Your task to perform on an android device: Open Google Maps Image 0: 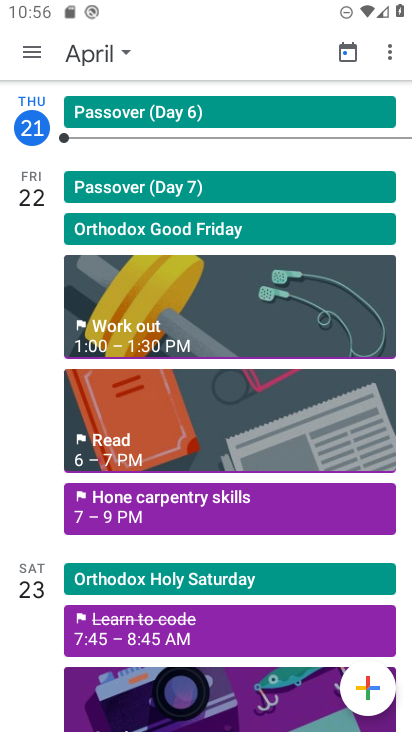
Step 0: press home button
Your task to perform on an android device: Open Google Maps Image 1: 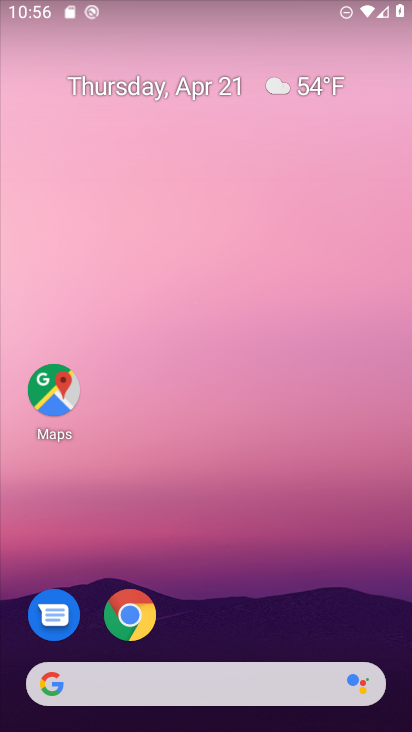
Step 1: drag from (298, 611) to (322, 294)
Your task to perform on an android device: Open Google Maps Image 2: 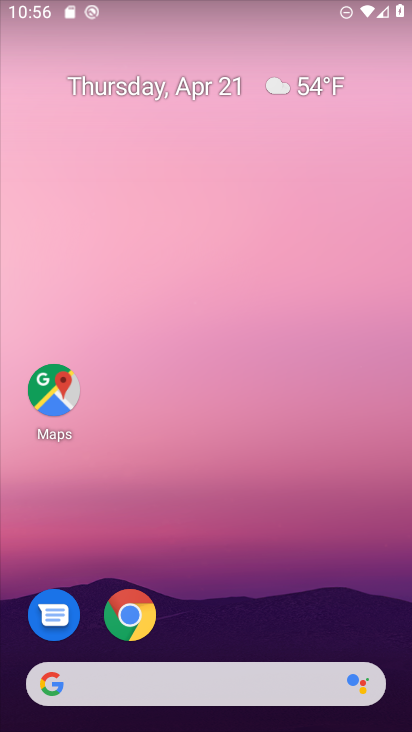
Step 2: drag from (271, 562) to (276, 38)
Your task to perform on an android device: Open Google Maps Image 3: 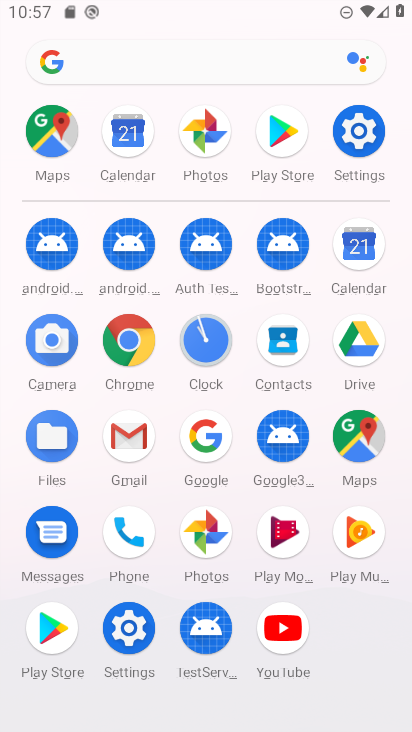
Step 3: click (366, 450)
Your task to perform on an android device: Open Google Maps Image 4: 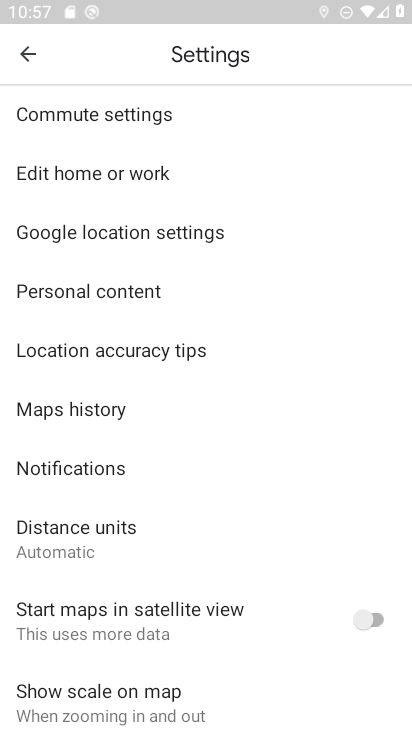
Step 4: click (26, 59)
Your task to perform on an android device: Open Google Maps Image 5: 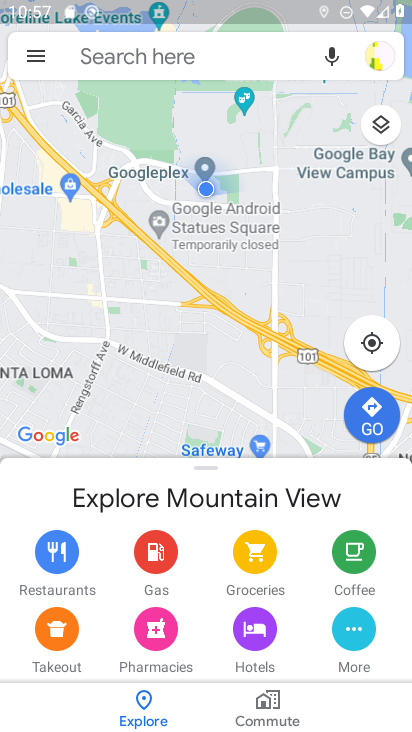
Step 5: task complete